Your task to perform on an android device: delete a single message in the gmail app Image 0: 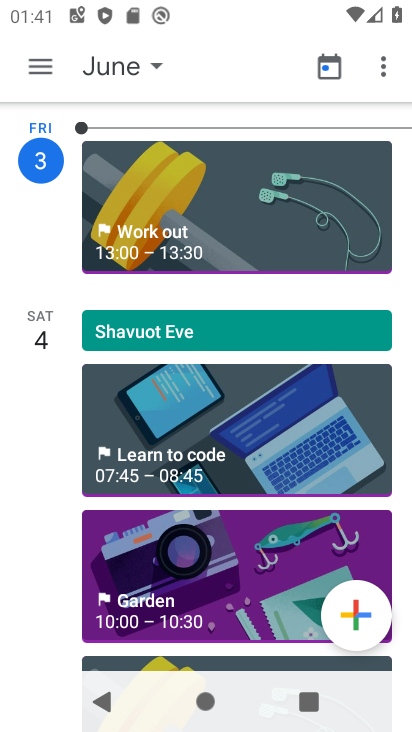
Step 0: press home button
Your task to perform on an android device: delete a single message in the gmail app Image 1: 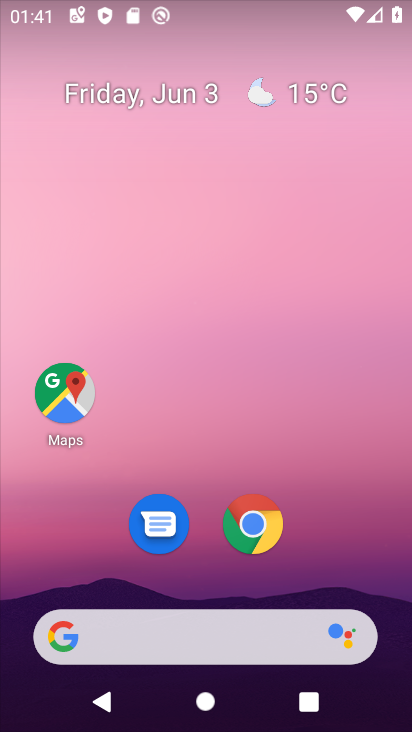
Step 1: drag from (314, 532) to (349, 11)
Your task to perform on an android device: delete a single message in the gmail app Image 2: 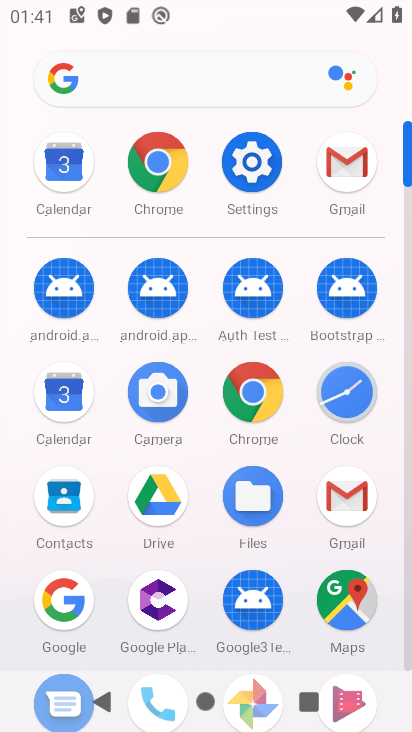
Step 2: click (349, 152)
Your task to perform on an android device: delete a single message in the gmail app Image 3: 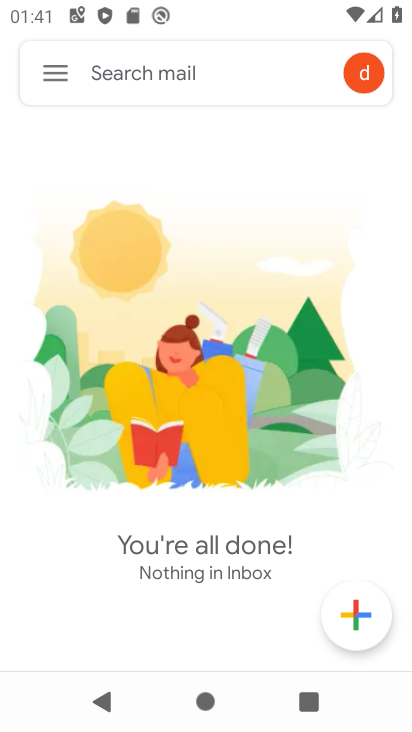
Step 3: click (47, 51)
Your task to perform on an android device: delete a single message in the gmail app Image 4: 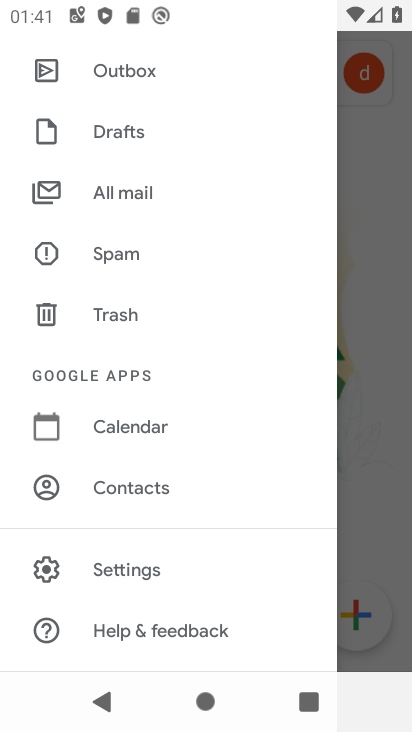
Step 4: click (121, 185)
Your task to perform on an android device: delete a single message in the gmail app Image 5: 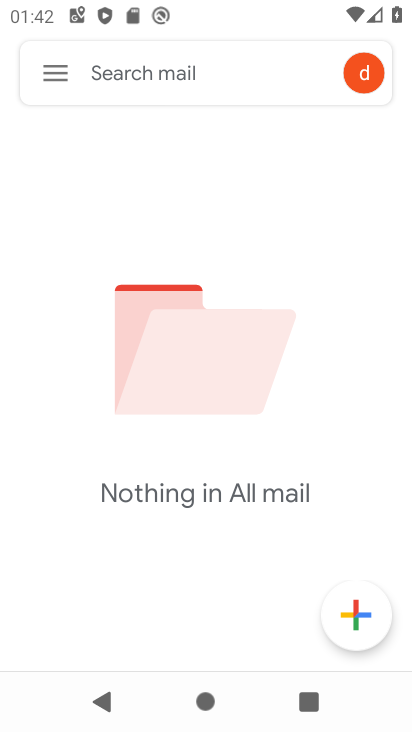
Step 5: task complete